Your task to perform on an android device: open wifi settings Image 0: 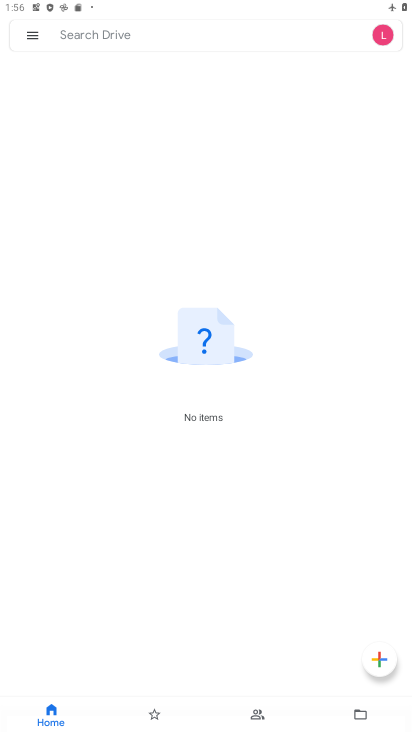
Step 0: press home button
Your task to perform on an android device: open wifi settings Image 1: 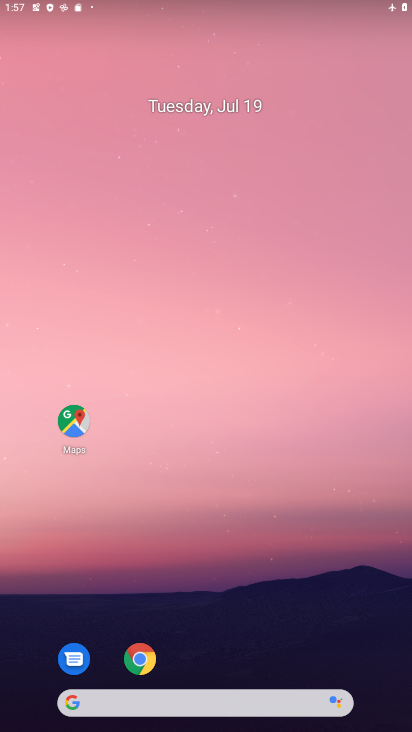
Step 1: drag from (405, 6) to (301, 709)
Your task to perform on an android device: open wifi settings Image 2: 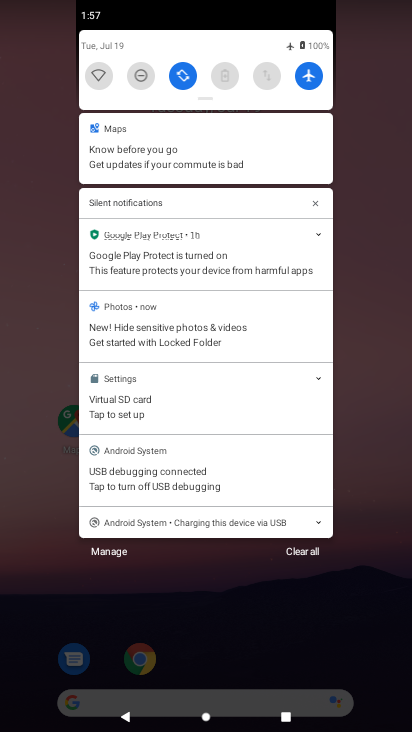
Step 2: click (93, 70)
Your task to perform on an android device: open wifi settings Image 3: 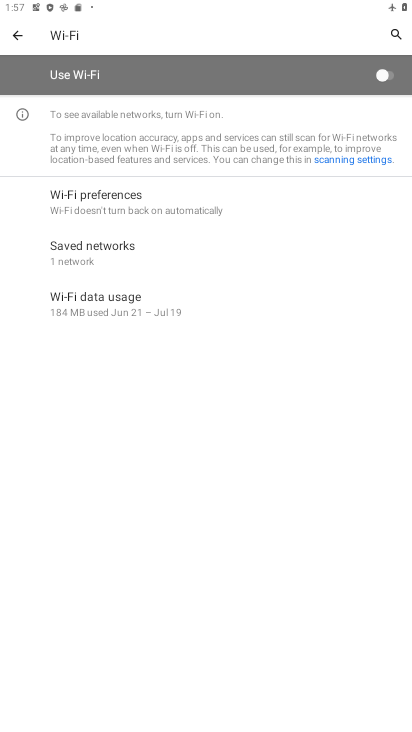
Step 3: task complete